Your task to perform on an android device: Open Amazon Image 0: 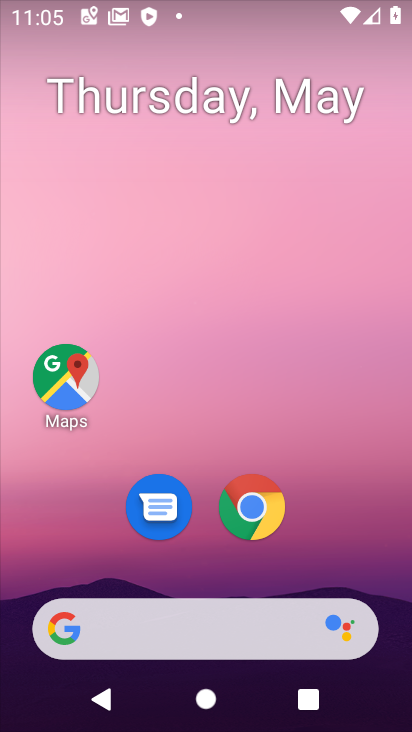
Step 0: click (250, 499)
Your task to perform on an android device: Open Amazon Image 1: 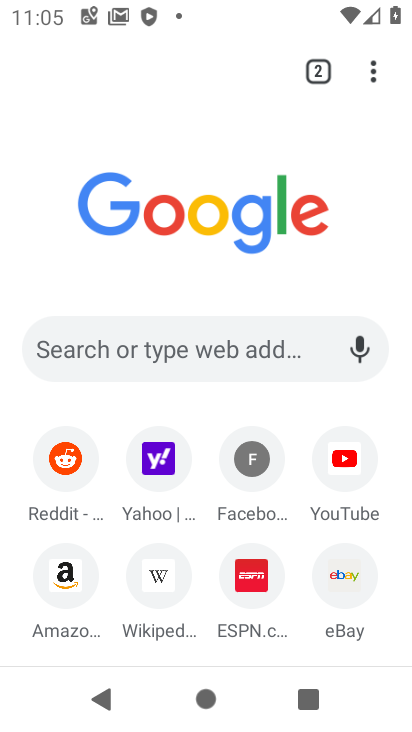
Step 1: click (70, 574)
Your task to perform on an android device: Open Amazon Image 2: 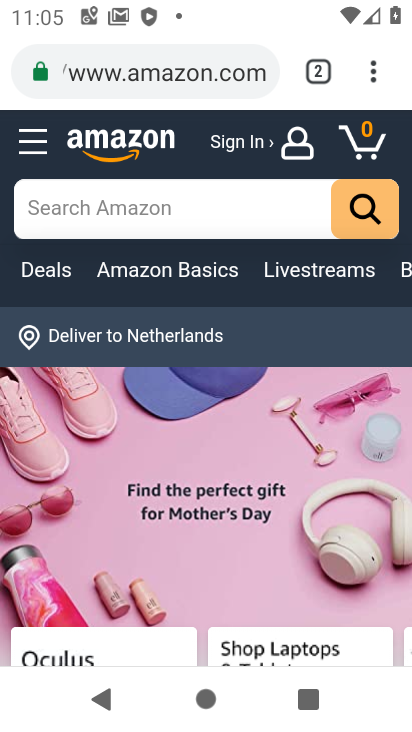
Step 2: task complete